Your task to perform on an android device: manage bookmarks in the chrome app Image 0: 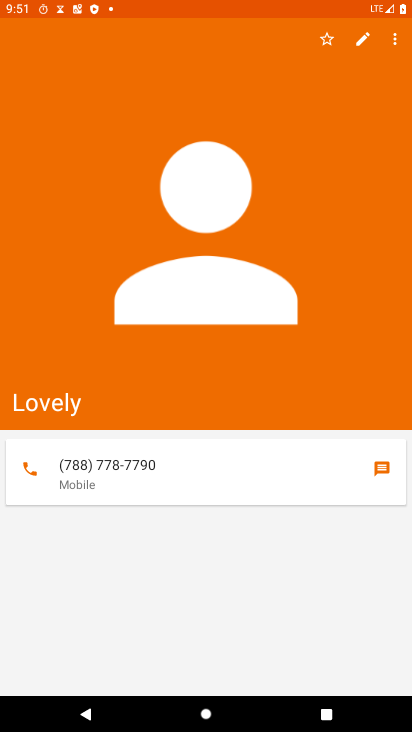
Step 0: press home button
Your task to perform on an android device: manage bookmarks in the chrome app Image 1: 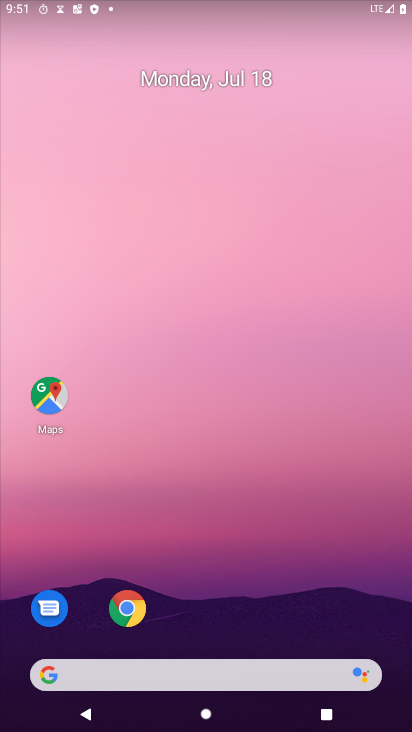
Step 1: click (125, 612)
Your task to perform on an android device: manage bookmarks in the chrome app Image 2: 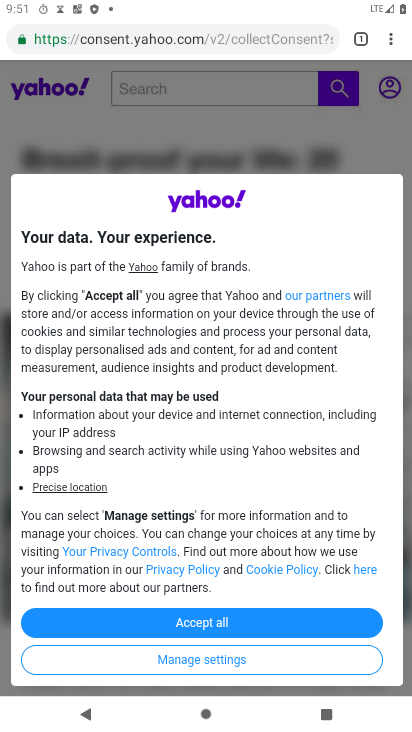
Step 2: click (389, 40)
Your task to perform on an android device: manage bookmarks in the chrome app Image 3: 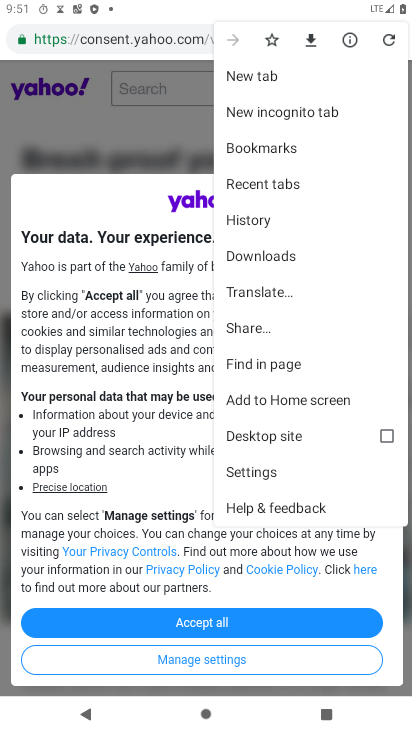
Step 3: drag from (275, 336) to (267, 475)
Your task to perform on an android device: manage bookmarks in the chrome app Image 4: 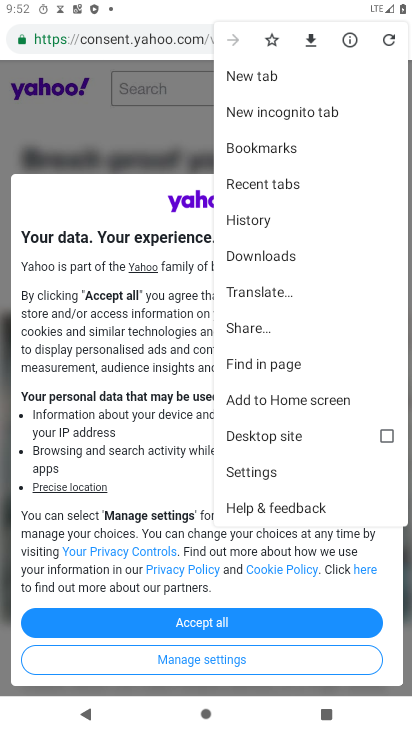
Step 4: click (246, 149)
Your task to perform on an android device: manage bookmarks in the chrome app Image 5: 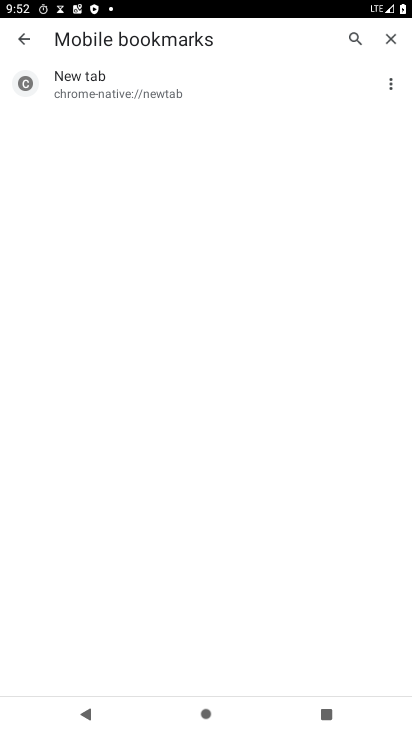
Step 5: click (391, 84)
Your task to perform on an android device: manage bookmarks in the chrome app Image 6: 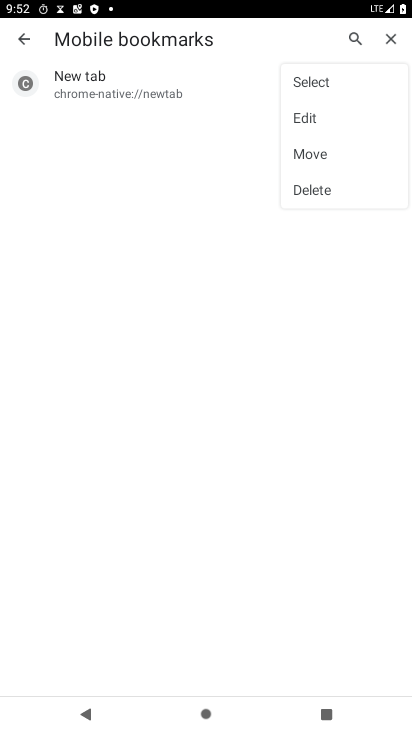
Step 6: click (314, 198)
Your task to perform on an android device: manage bookmarks in the chrome app Image 7: 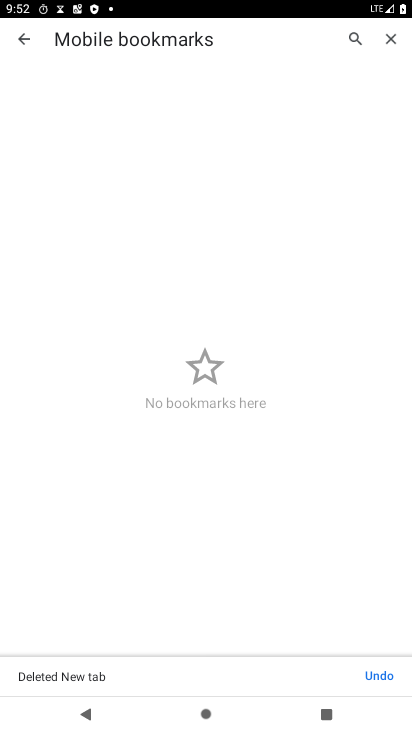
Step 7: task complete